Your task to perform on an android device: clear all cookies in the chrome app Image 0: 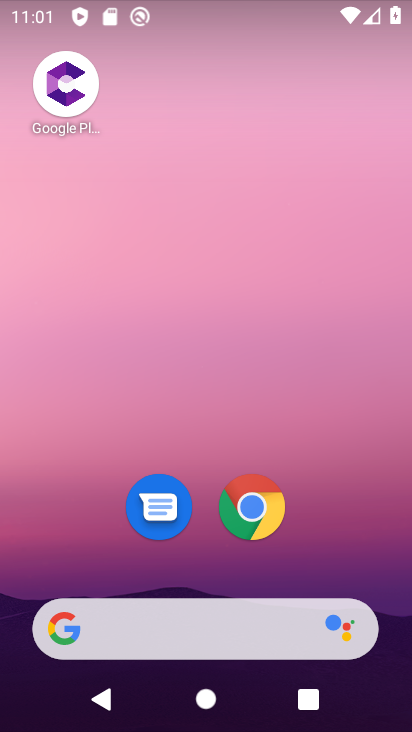
Step 0: press home button
Your task to perform on an android device: clear all cookies in the chrome app Image 1: 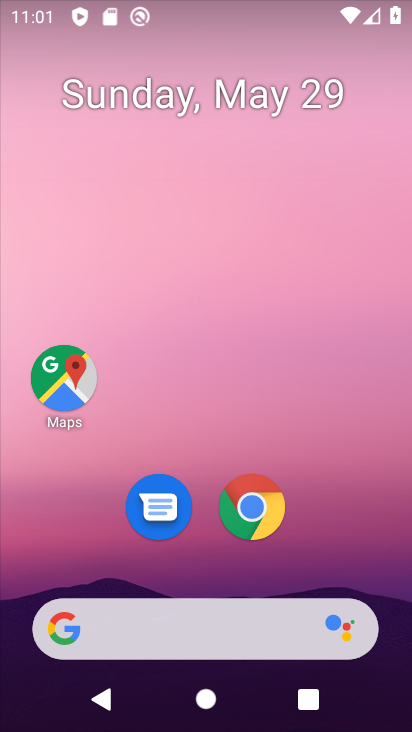
Step 1: drag from (224, 477) to (159, 206)
Your task to perform on an android device: clear all cookies in the chrome app Image 2: 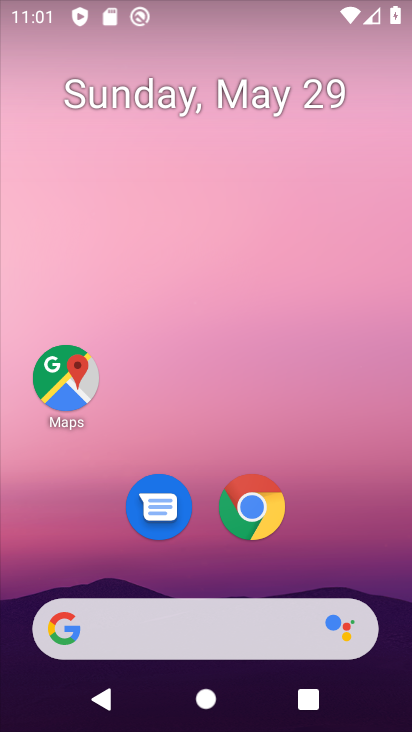
Step 2: drag from (238, 667) to (205, 216)
Your task to perform on an android device: clear all cookies in the chrome app Image 3: 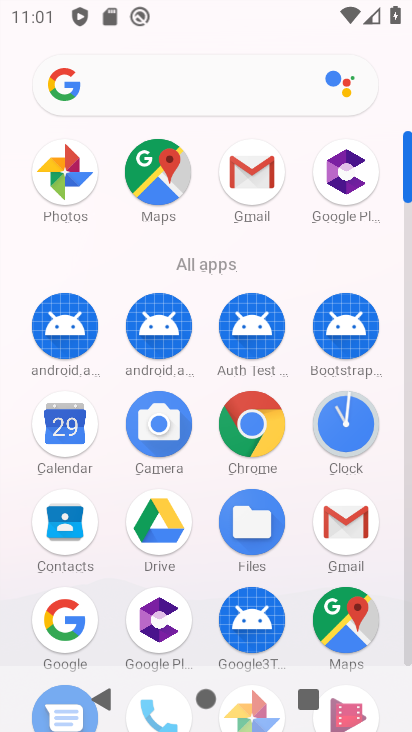
Step 3: click (245, 435)
Your task to perform on an android device: clear all cookies in the chrome app Image 4: 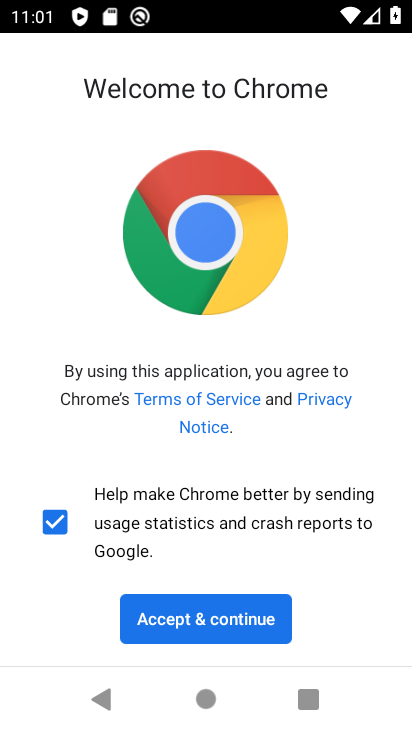
Step 4: click (250, 601)
Your task to perform on an android device: clear all cookies in the chrome app Image 5: 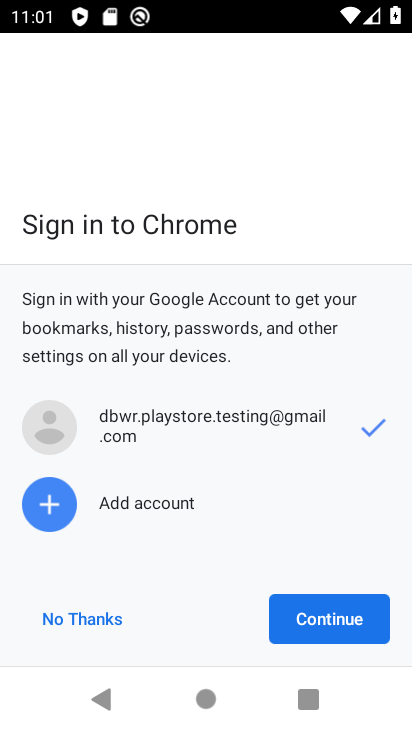
Step 5: click (359, 606)
Your task to perform on an android device: clear all cookies in the chrome app Image 6: 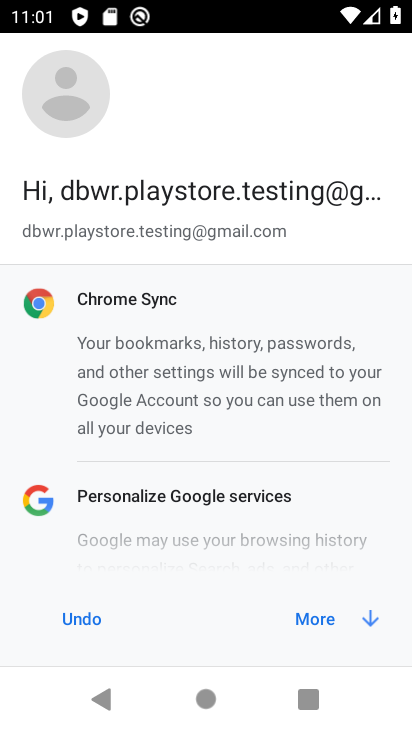
Step 6: click (362, 612)
Your task to perform on an android device: clear all cookies in the chrome app Image 7: 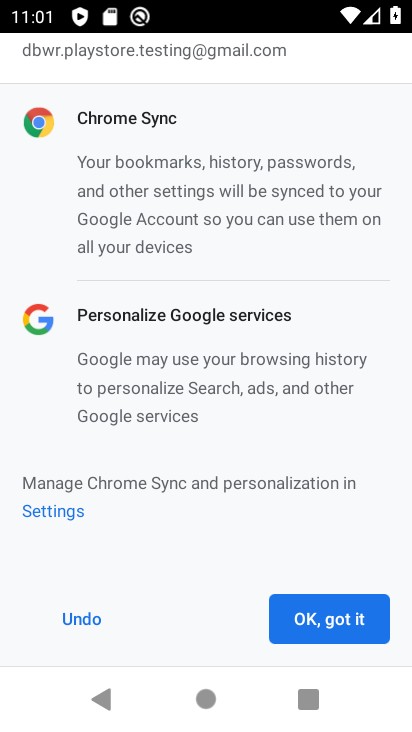
Step 7: click (349, 605)
Your task to perform on an android device: clear all cookies in the chrome app Image 8: 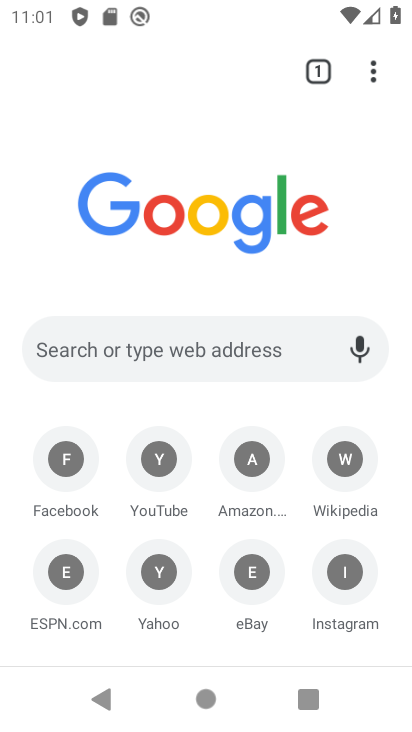
Step 8: click (360, 81)
Your task to perform on an android device: clear all cookies in the chrome app Image 9: 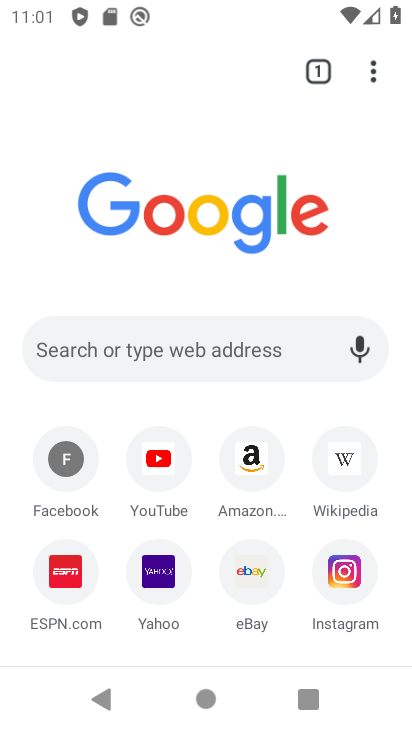
Step 9: click (378, 74)
Your task to perform on an android device: clear all cookies in the chrome app Image 10: 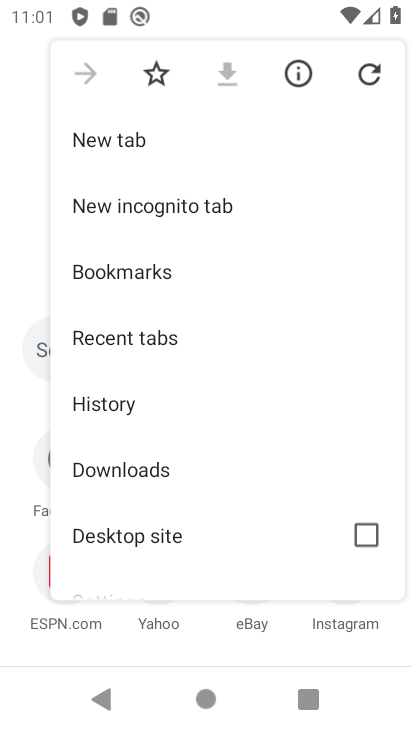
Step 10: click (122, 393)
Your task to perform on an android device: clear all cookies in the chrome app Image 11: 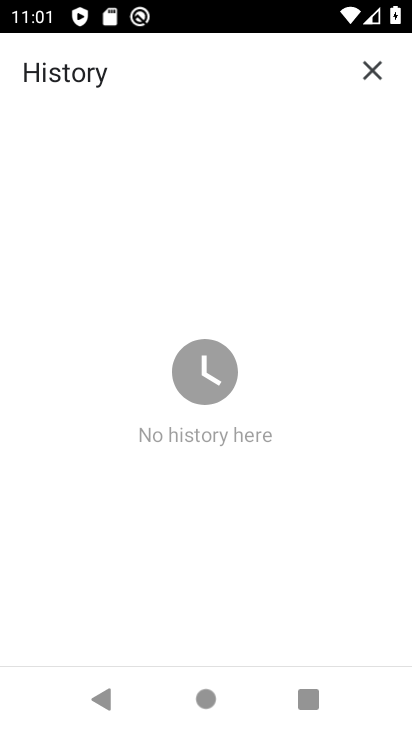
Step 11: task complete